Your task to perform on an android device: toggle javascript in the chrome app Image 0: 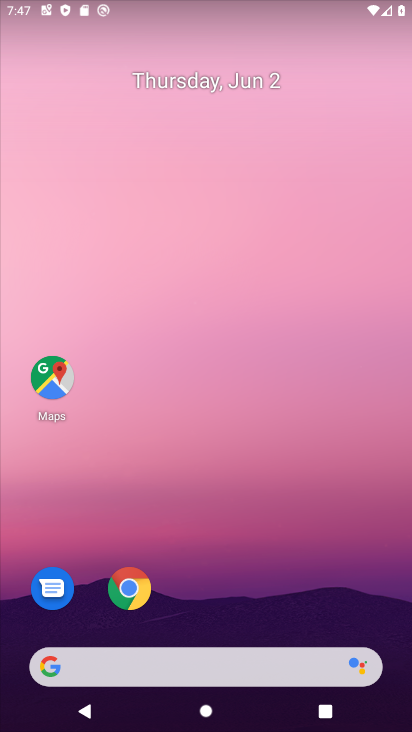
Step 0: drag from (216, 426) to (216, 174)
Your task to perform on an android device: toggle javascript in the chrome app Image 1: 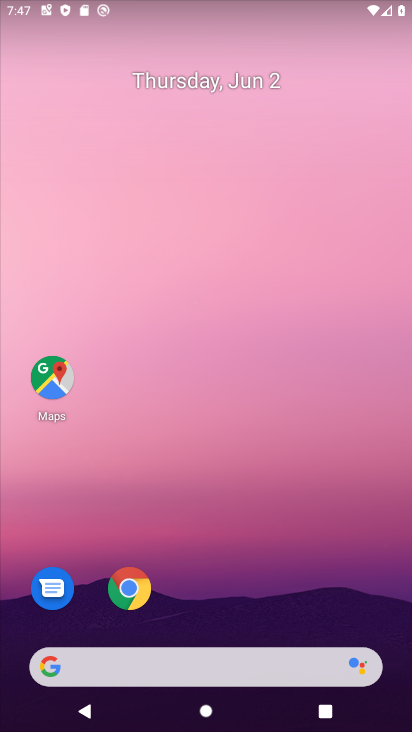
Step 1: click (130, 608)
Your task to perform on an android device: toggle javascript in the chrome app Image 2: 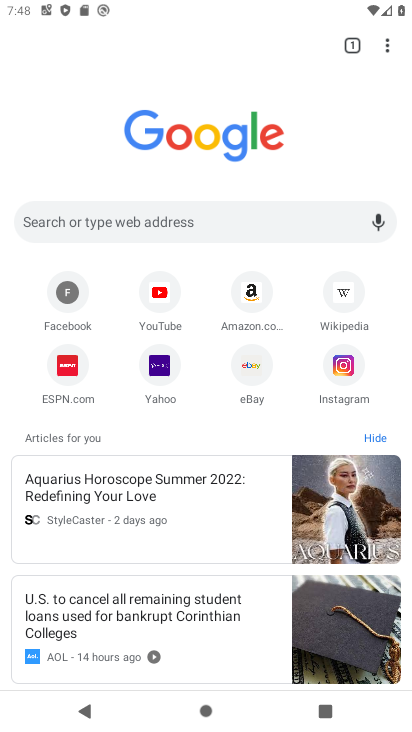
Step 2: click (384, 35)
Your task to perform on an android device: toggle javascript in the chrome app Image 3: 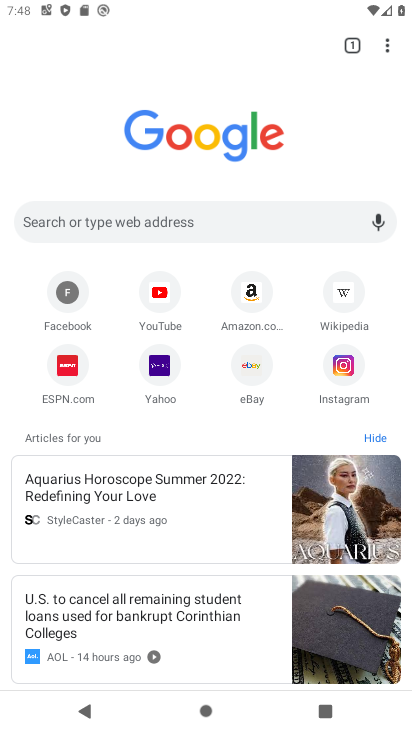
Step 3: click (390, 47)
Your task to perform on an android device: toggle javascript in the chrome app Image 4: 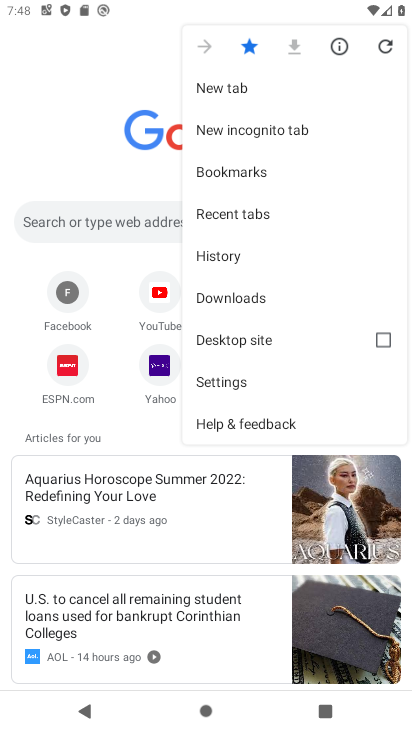
Step 4: click (225, 375)
Your task to perform on an android device: toggle javascript in the chrome app Image 5: 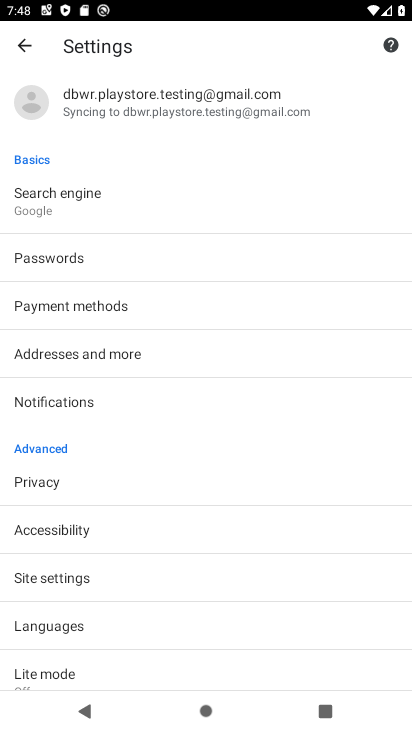
Step 5: drag from (163, 516) to (224, 216)
Your task to perform on an android device: toggle javascript in the chrome app Image 6: 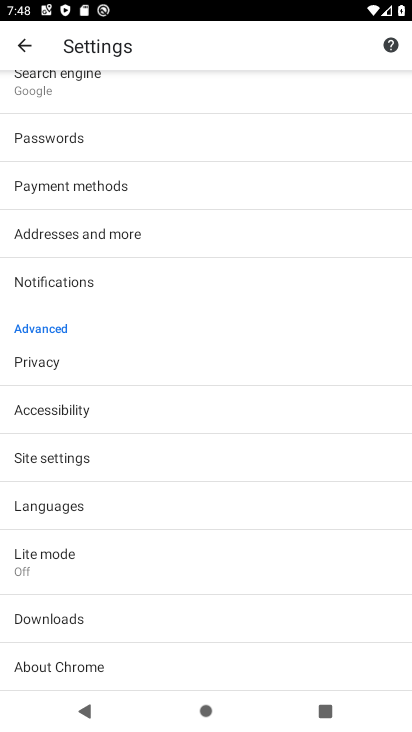
Step 6: click (42, 459)
Your task to perform on an android device: toggle javascript in the chrome app Image 7: 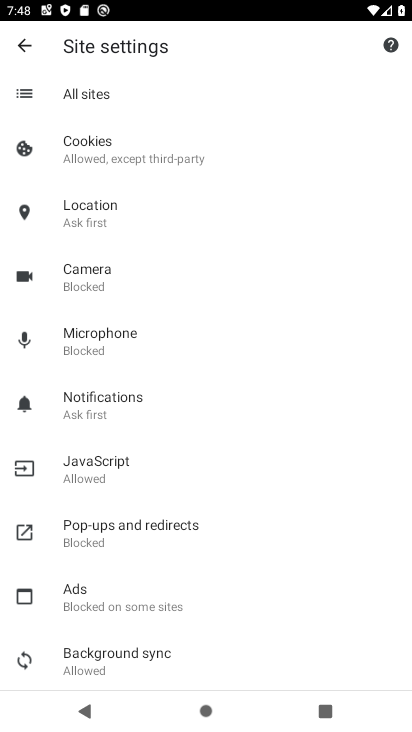
Step 7: click (156, 467)
Your task to perform on an android device: toggle javascript in the chrome app Image 8: 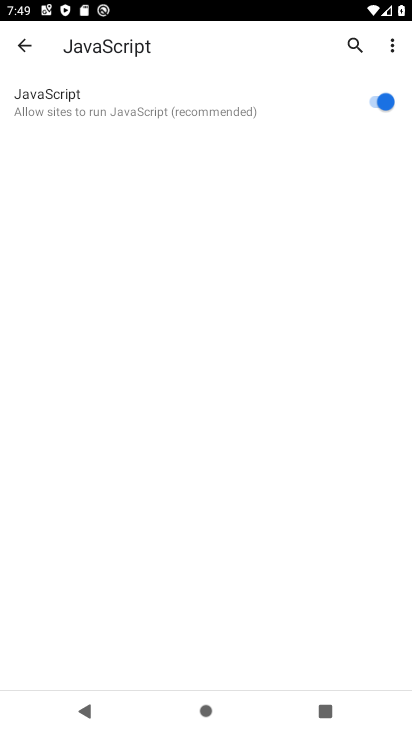
Step 8: click (379, 98)
Your task to perform on an android device: toggle javascript in the chrome app Image 9: 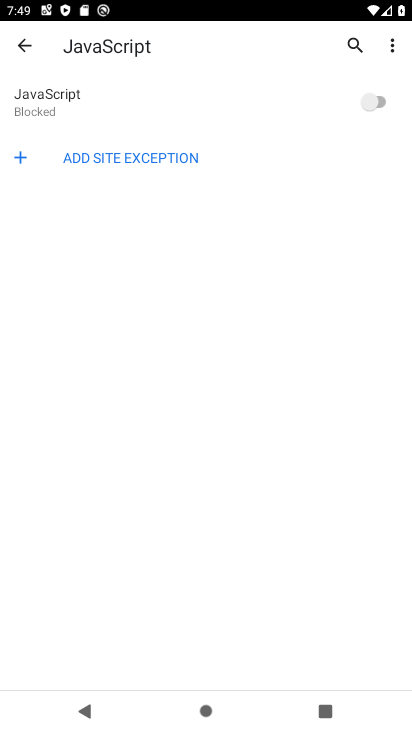
Step 9: task complete